Your task to perform on an android device: Check the news Image 0: 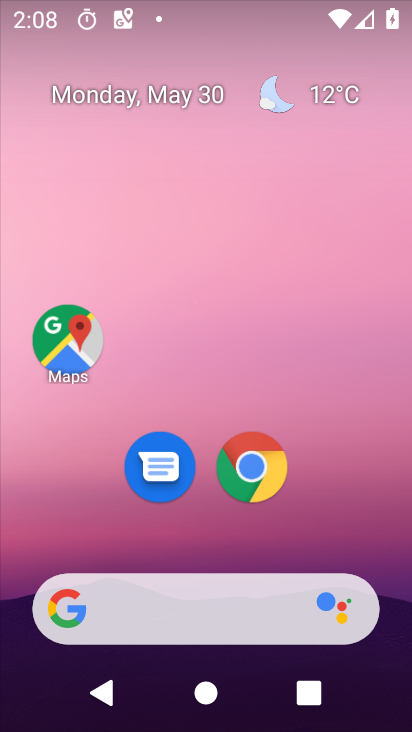
Step 0: drag from (2, 252) to (371, 227)
Your task to perform on an android device: Check the news Image 1: 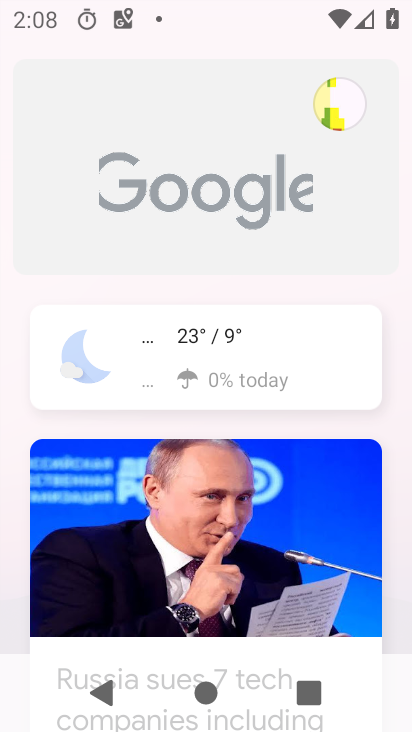
Step 1: task complete